Your task to perform on an android device: change alarm snooze length Image 0: 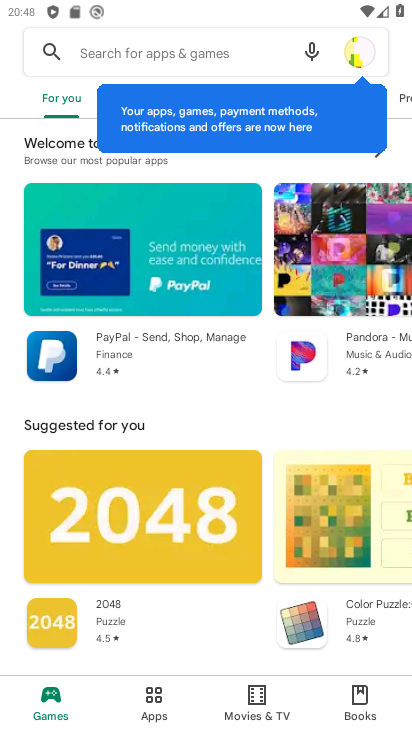
Step 0: press back button
Your task to perform on an android device: change alarm snooze length Image 1: 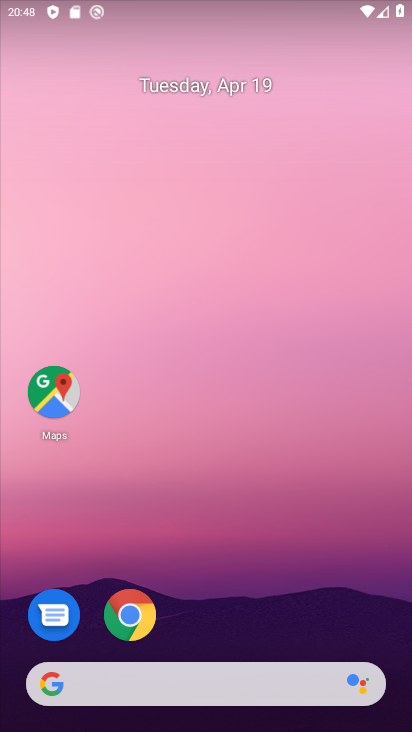
Step 1: drag from (167, 660) to (283, 190)
Your task to perform on an android device: change alarm snooze length Image 2: 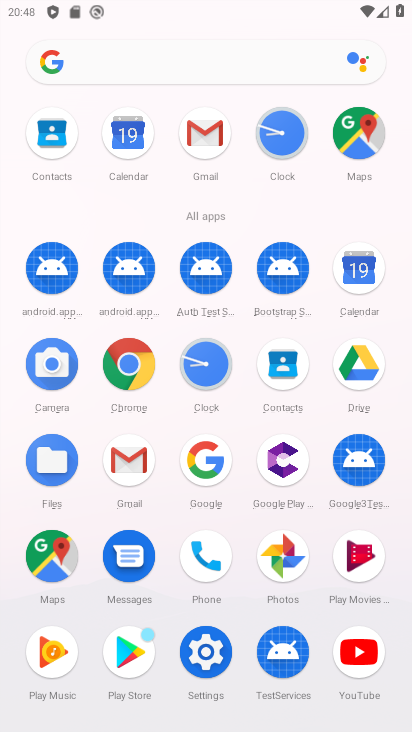
Step 2: click (285, 146)
Your task to perform on an android device: change alarm snooze length Image 3: 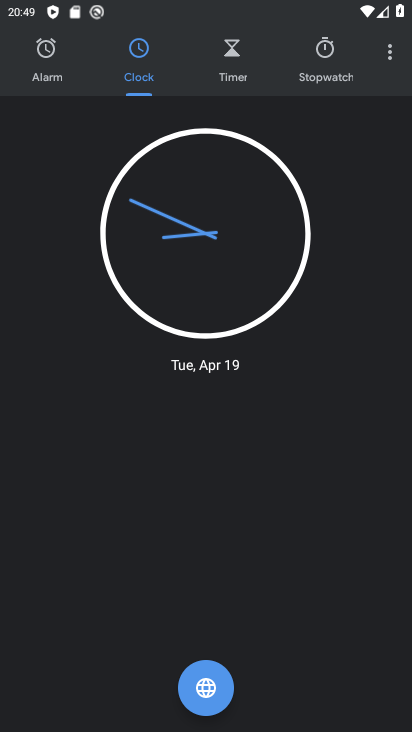
Step 3: click (386, 57)
Your task to perform on an android device: change alarm snooze length Image 4: 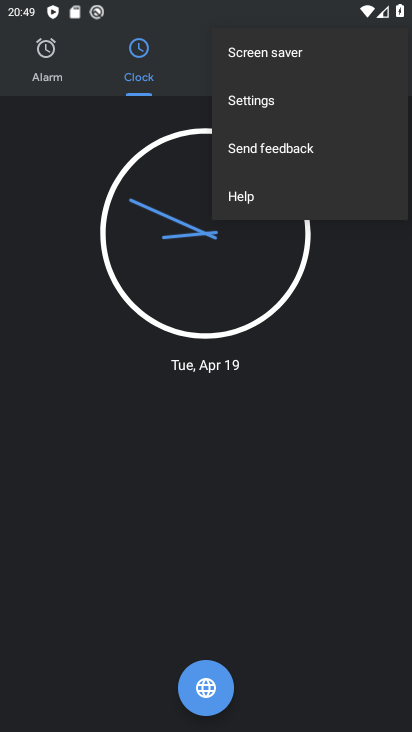
Step 4: click (238, 115)
Your task to perform on an android device: change alarm snooze length Image 5: 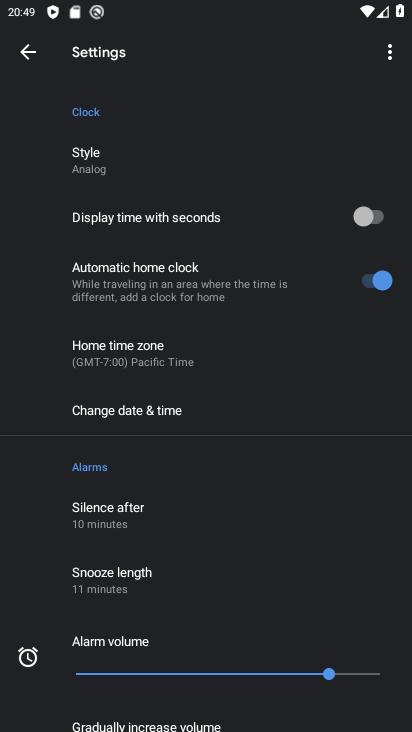
Step 5: click (126, 581)
Your task to perform on an android device: change alarm snooze length Image 6: 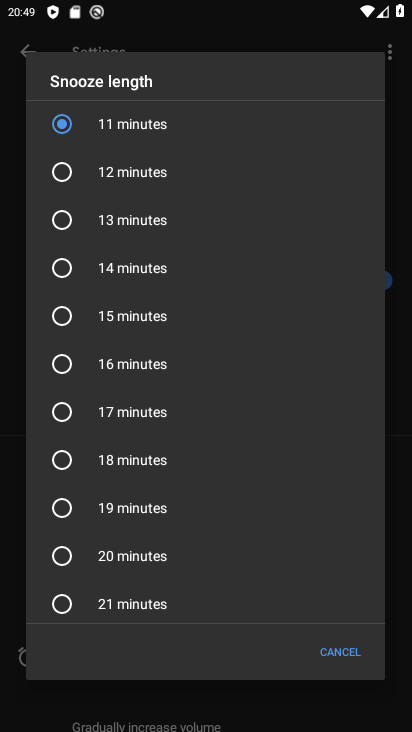
Step 6: drag from (174, 129) to (234, 504)
Your task to perform on an android device: change alarm snooze length Image 7: 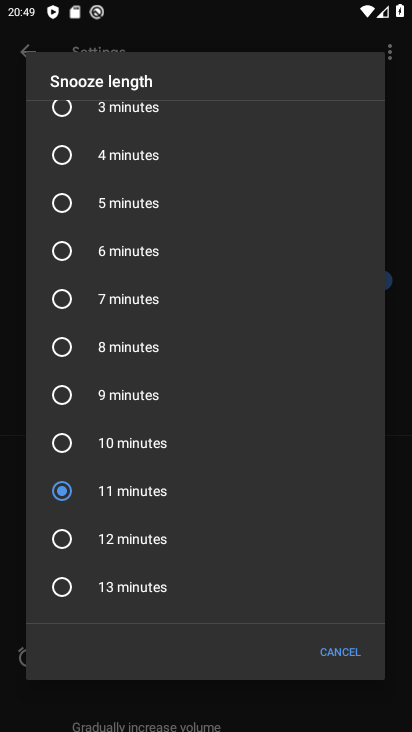
Step 7: click (63, 200)
Your task to perform on an android device: change alarm snooze length Image 8: 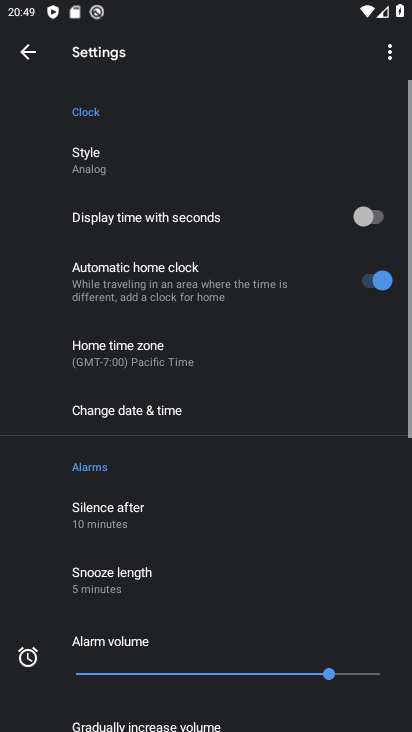
Step 8: task complete